Your task to perform on an android device: change the clock display to show seconds Image 0: 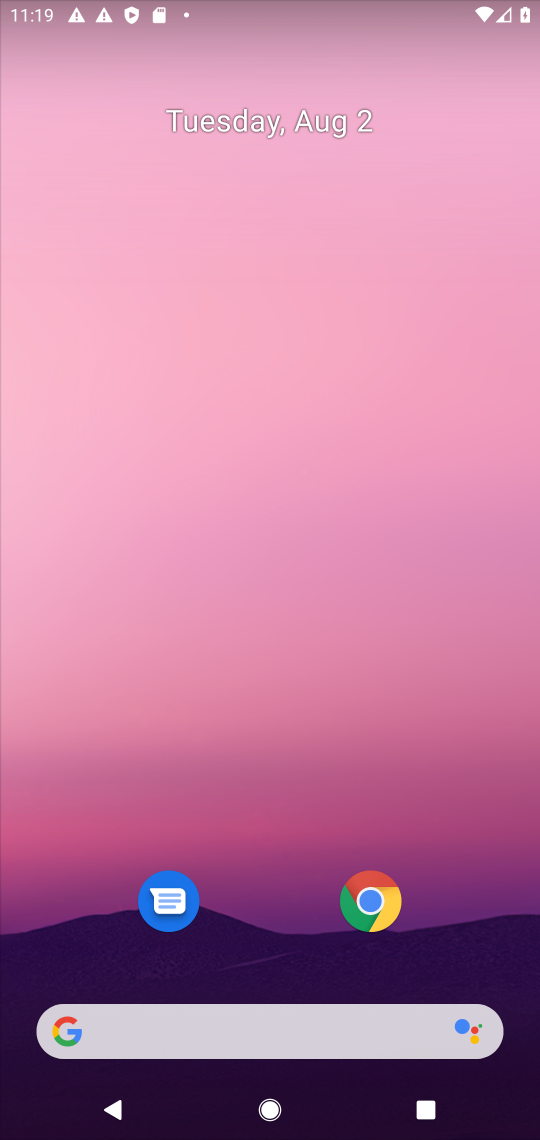
Step 0: drag from (511, 1114) to (467, 401)
Your task to perform on an android device: change the clock display to show seconds Image 1: 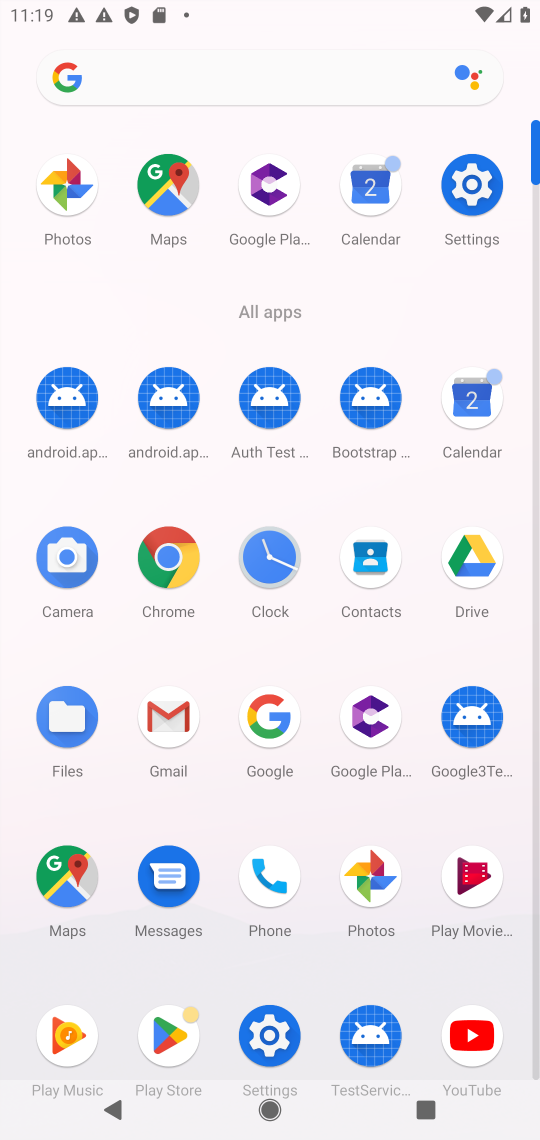
Step 1: click (292, 558)
Your task to perform on an android device: change the clock display to show seconds Image 2: 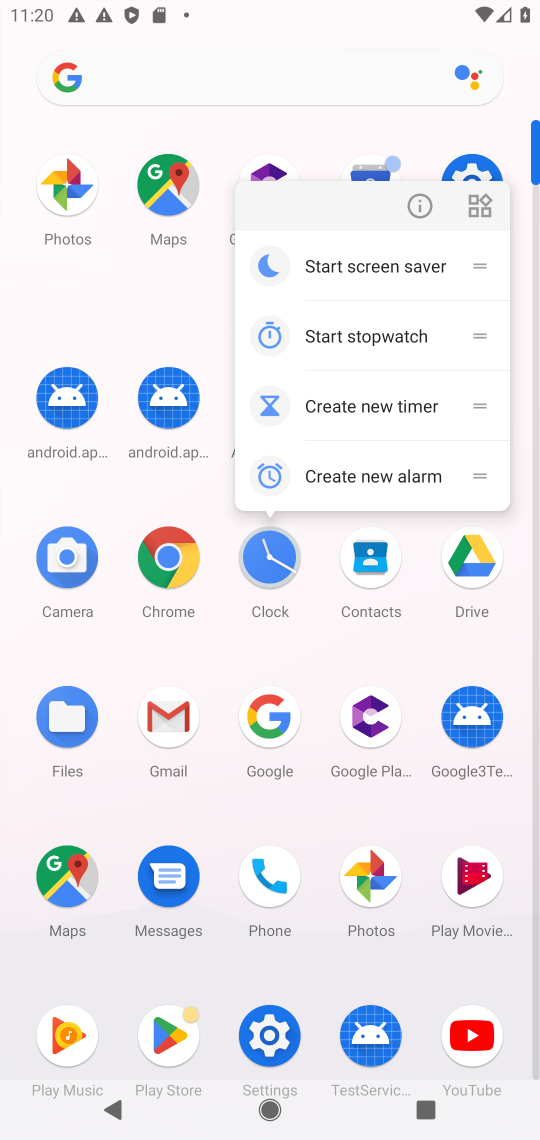
Step 2: click (278, 550)
Your task to perform on an android device: change the clock display to show seconds Image 3: 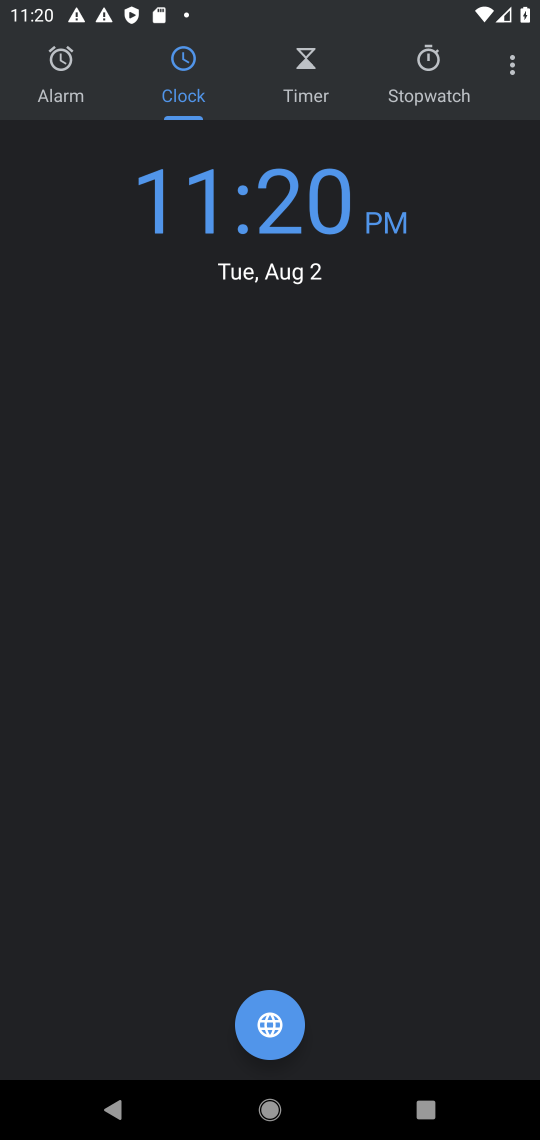
Step 3: click (513, 58)
Your task to perform on an android device: change the clock display to show seconds Image 4: 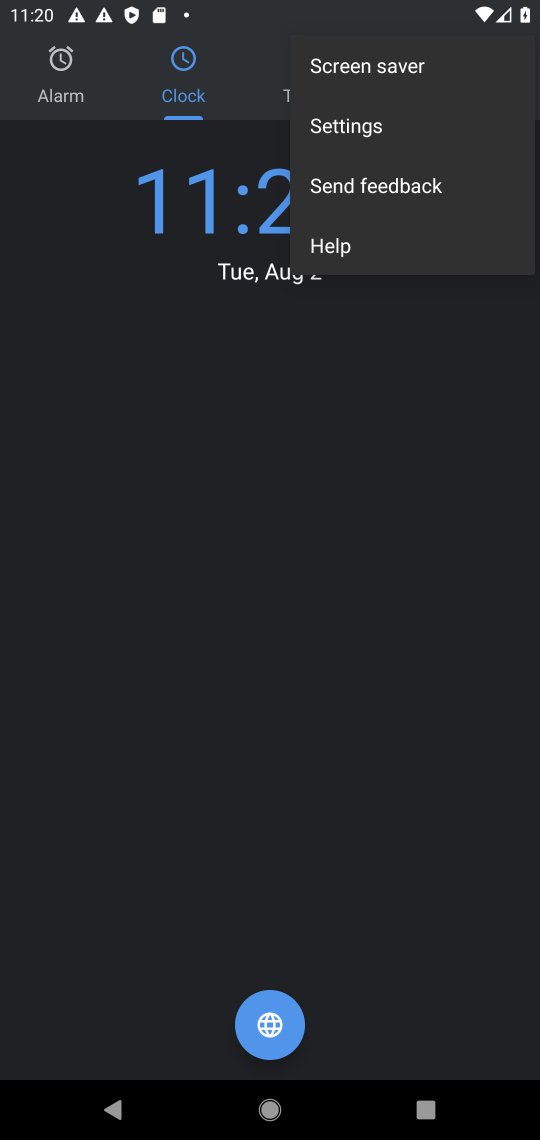
Step 4: click (373, 136)
Your task to perform on an android device: change the clock display to show seconds Image 5: 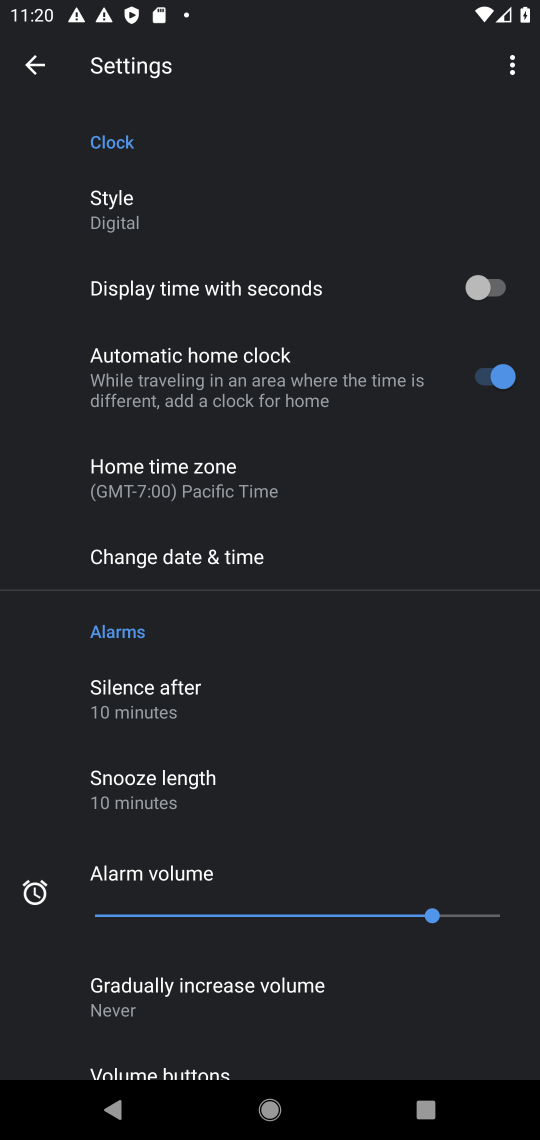
Step 5: click (505, 295)
Your task to perform on an android device: change the clock display to show seconds Image 6: 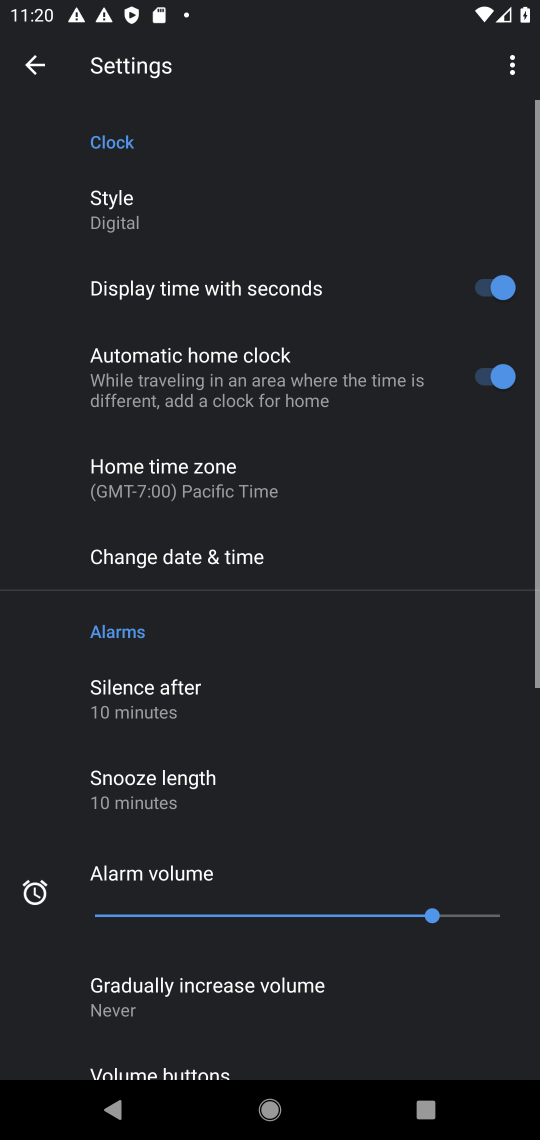
Step 6: task complete